Your task to perform on an android device: show emergency info Image 0: 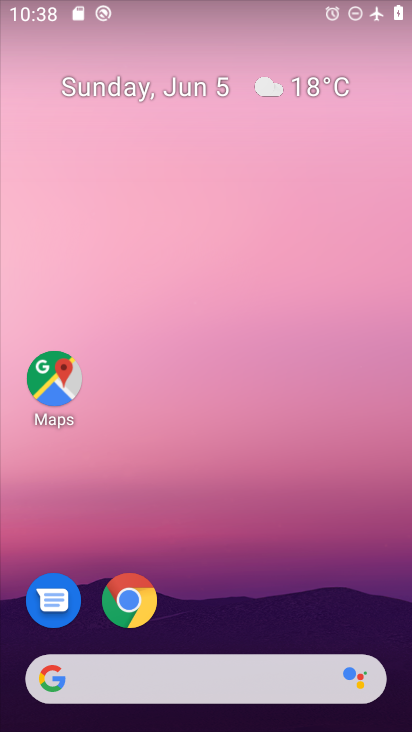
Step 0: drag from (259, 552) to (246, 18)
Your task to perform on an android device: show emergency info Image 1: 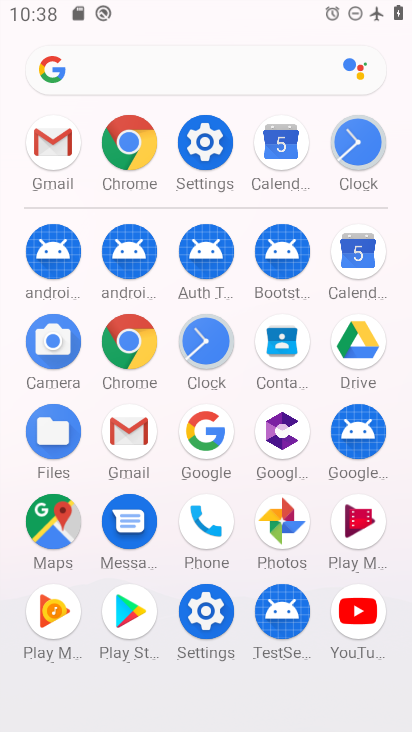
Step 1: click (218, 142)
Your task to perform on an android device: show emergency info Image 2: 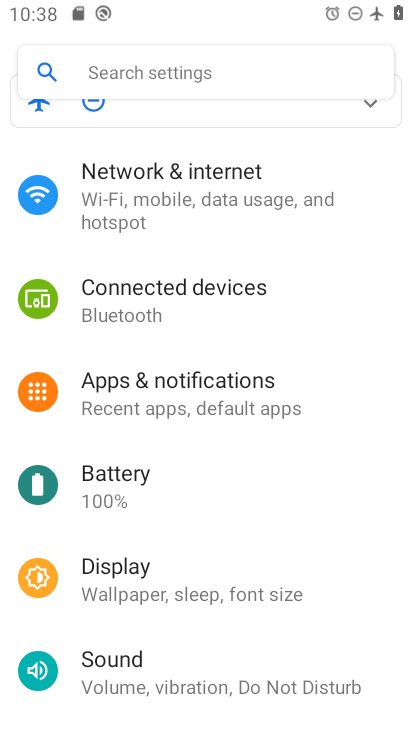
Step 2: drag from (228, 505) to (239, 39)
Your task to perform on an android device: show emergency info Image 3: 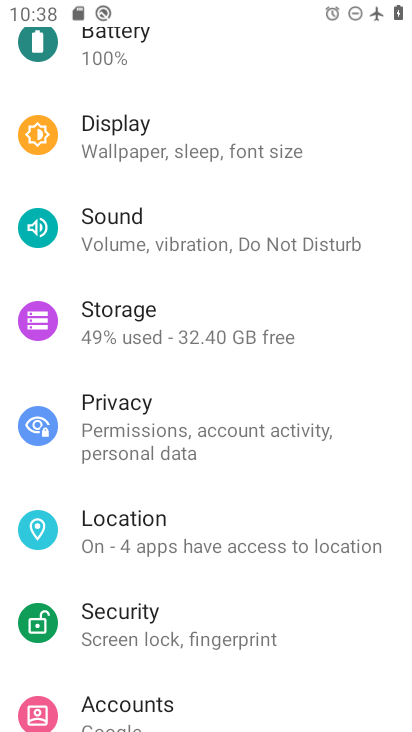
Step 3: drag from (227, 657) to (224, 21)
Your task to perform on an android device: show emergency info Image 4: 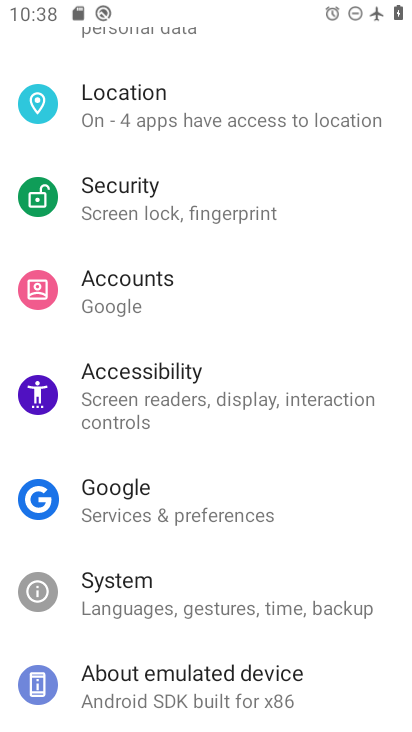
Step 4: click (212, 675)
Your task to perform on an android device: show emergency info Image 5: 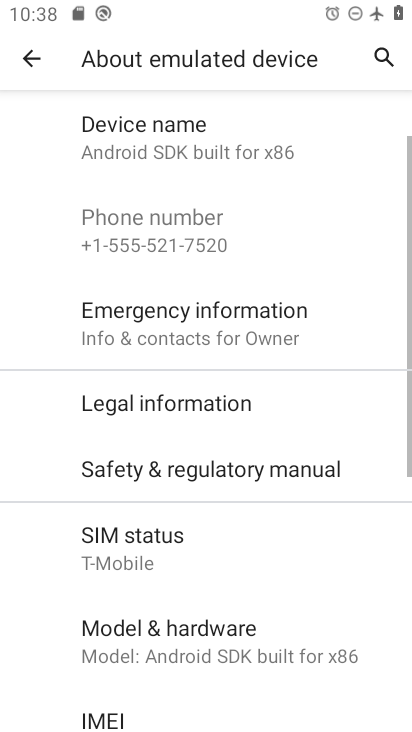
Step 5: click (235, 322)
Your task to perform on an android device: show emergency info Image 6: 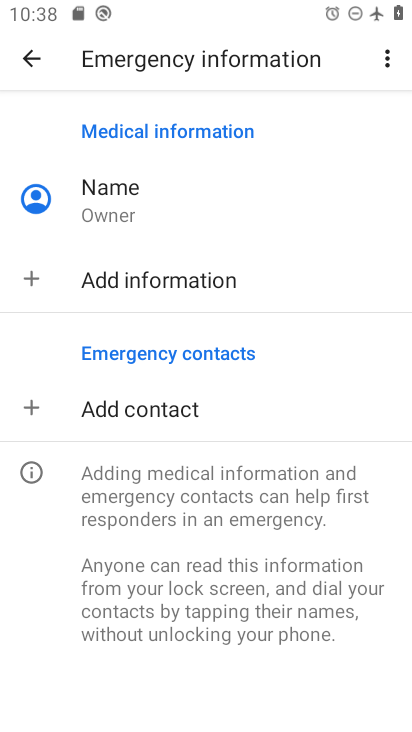
Step 6: task complete